Your task to perform on an android device: Open Chrome and go to the settings page Image 0: 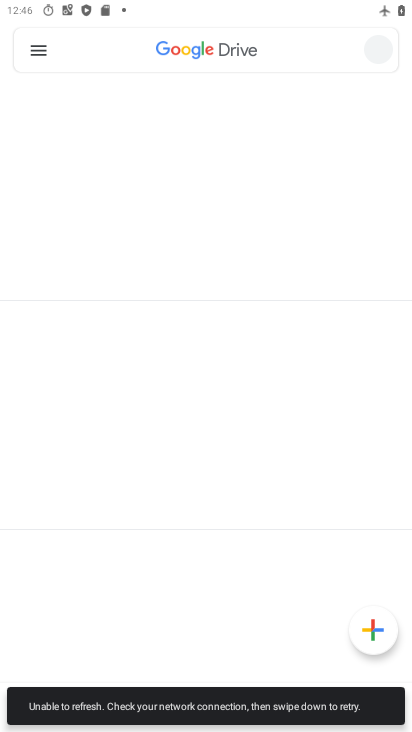
Step 0: click (125, 640)
Your task to perform on an android device: Open Chrome and go to the settings page Image 1: 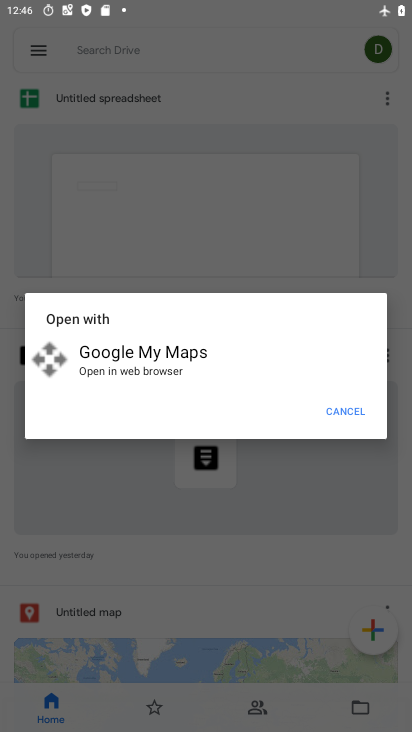
Step 1: press home button
Your task to perform on an android device: Open Chrome and go to the settings page Image 2: 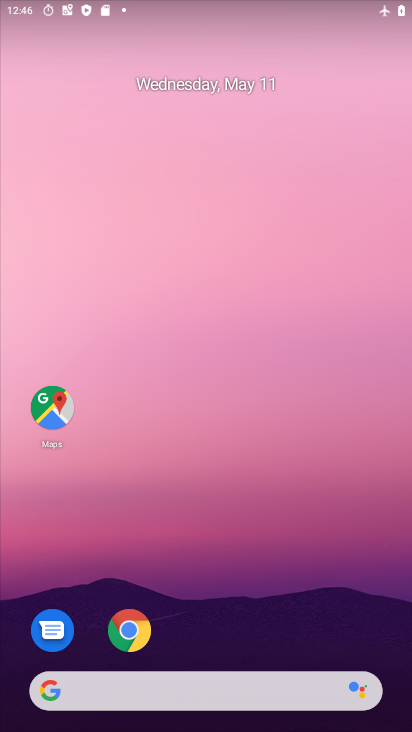
Step 2: click (134, 623)
Your task to perform on an android device: Open Chrome and go to the settings page Image 3: 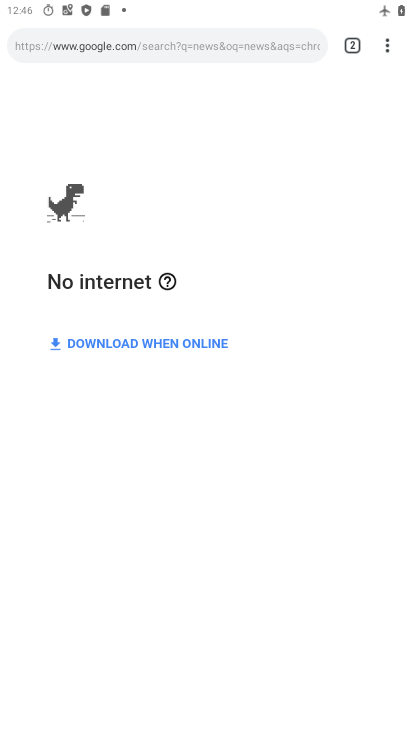
Step 3: click (388, 41)
Your task to perform on an android device: Open Chrome and go to the settings page Image 4: 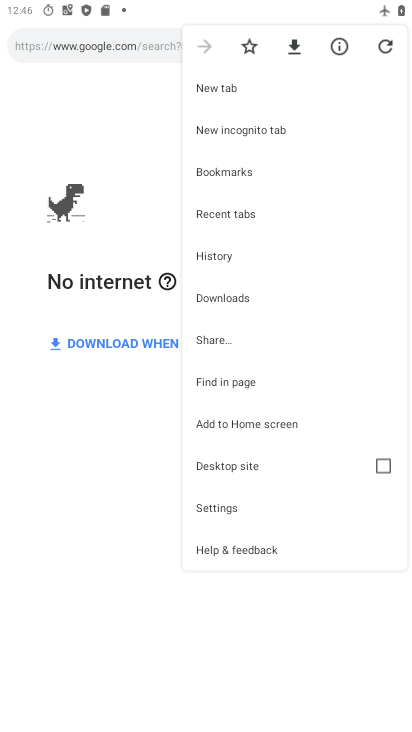
Step 4: click (237, 508)
Your task to perform on an android device: Open Chrome and go to the settings page Image 5: 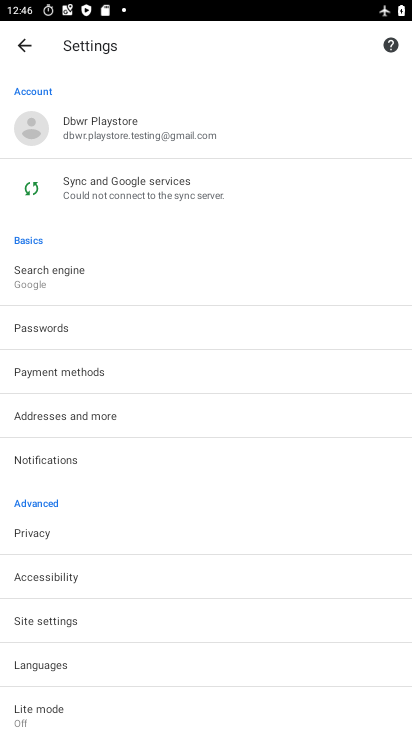
Step 5: task complete